Your task to perform on an android device: See recent photos Image 0: 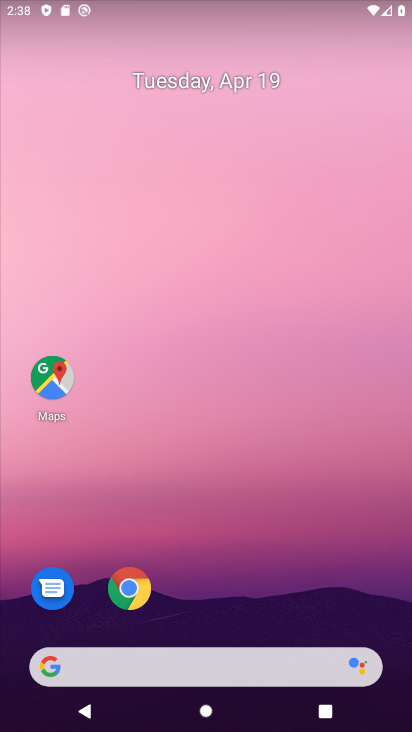
Step 0: drag from (185, 692) to (193, 238)
Your task to perform on an android device: See recent photos Image 1: 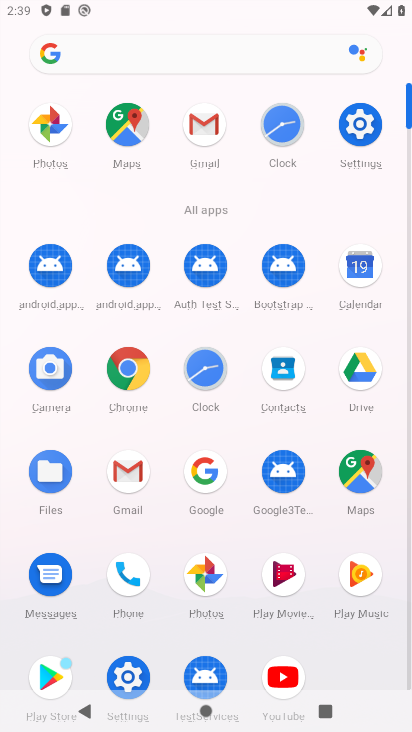
Step 1: click (221, 553)
Your task to perform on an android device: See recent photos Image 2: 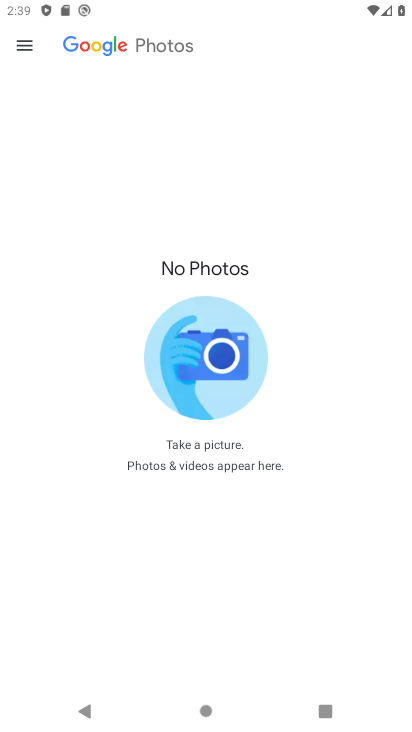
Step 2: click (36, 56)
Your task to perform on an android device: See recent photos Image 3: 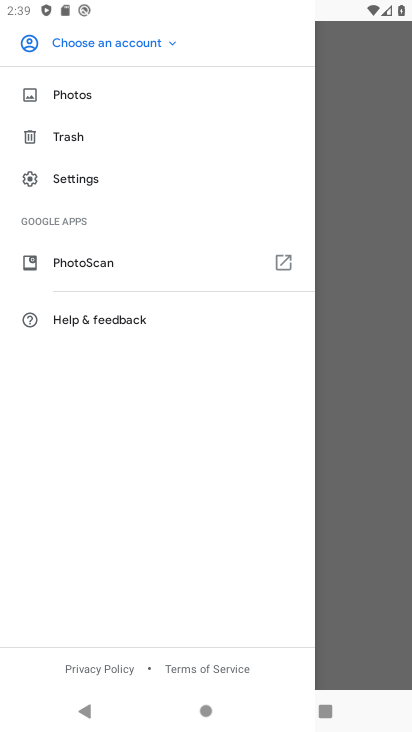
Step 3: click (72, 99)
Your task to perform on an android device: See recent photos Image 4: 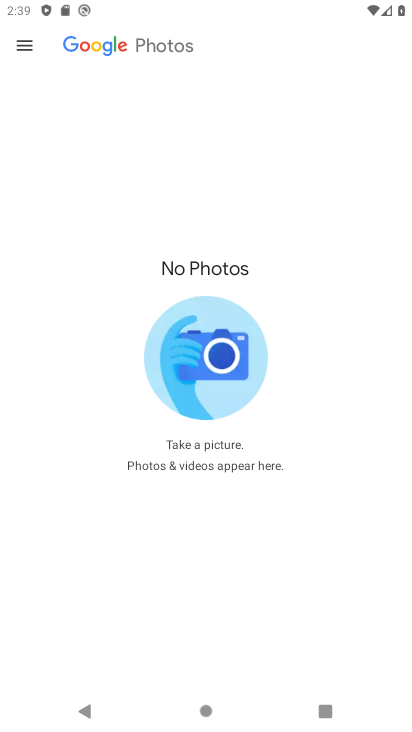
Step 4: task complete